Your task to perform on an android device: change timer sound Image 0: 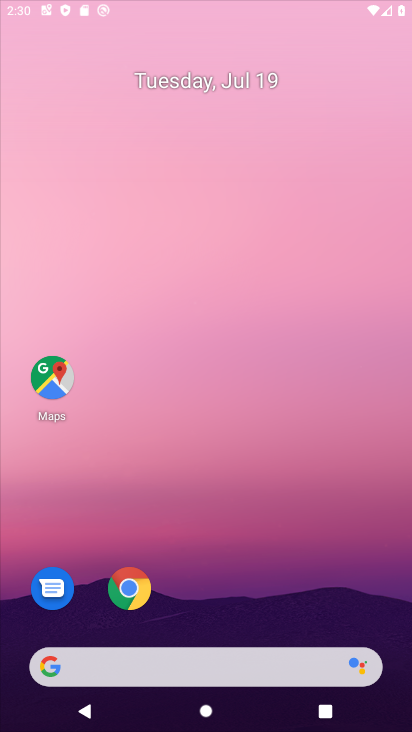
Step 0: click (136, 652)
Your task to perform on an android device: change timer sound Image 1: 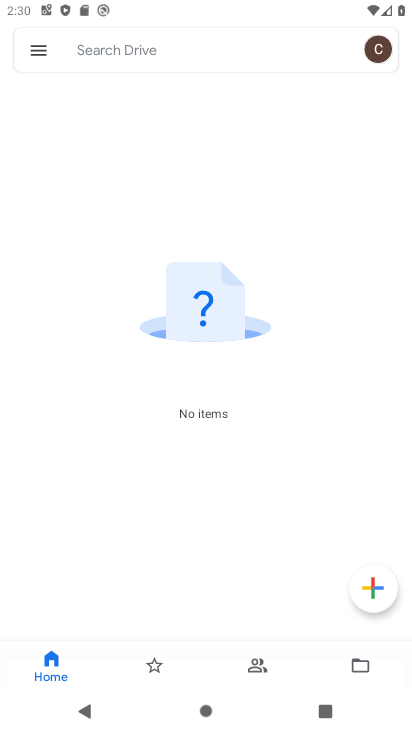
Step 1: press home button
Your task to perform on an android device: change timer sound Image 2: 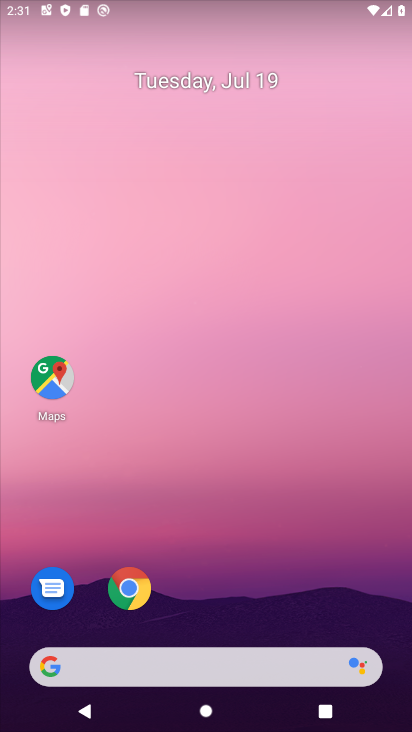
Step 2: click (163, 671)
Your task to perform on an android device: change timer sound Image 3: 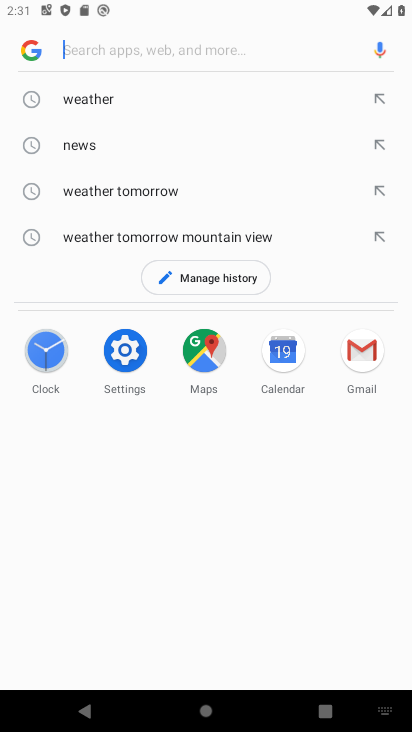
Step 3: click (88, 101)
Your task to perform on an android device: change timer sound Image 4: 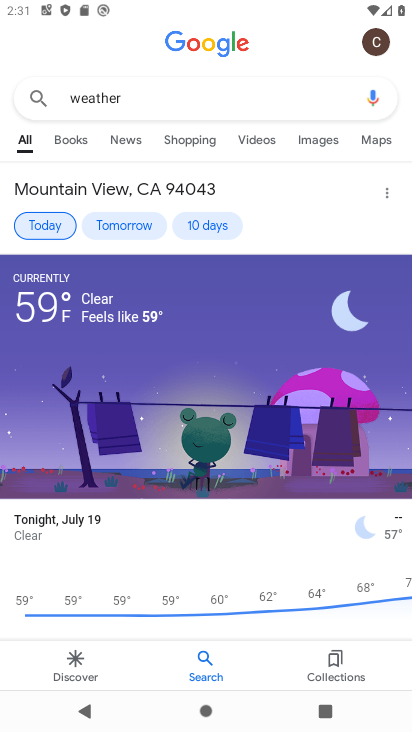
Step 4: press home button
Your task to perform on an android device: change timer sound Image 5: 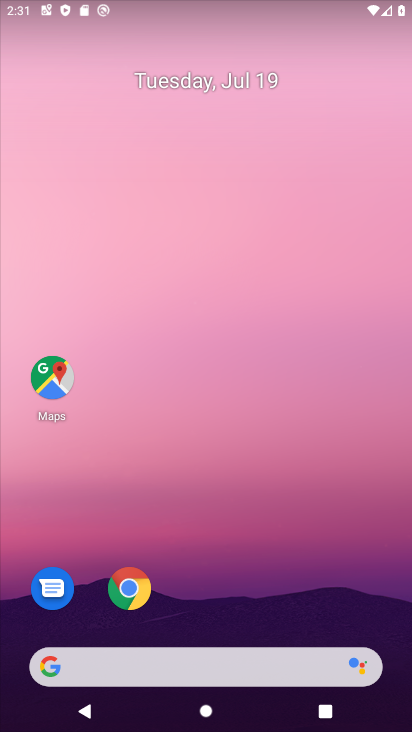
Step 5: click (142, 249)
Your task to perform on an android device: change timer sound Image 6: 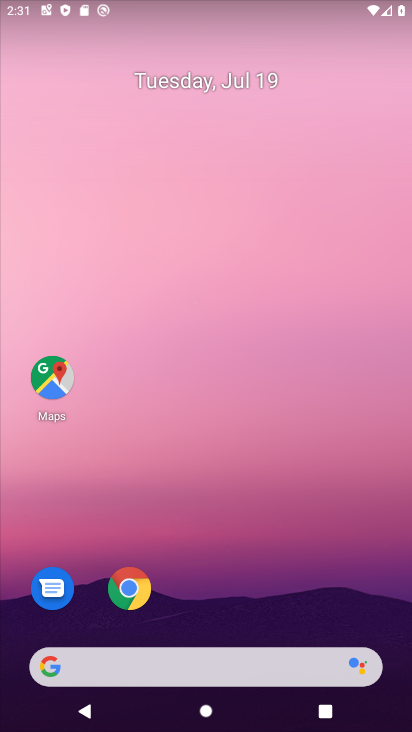
Step 6: drag from (208, 604) to (223, 60)
Your task to perform on an android device: change timer sound Image 7: 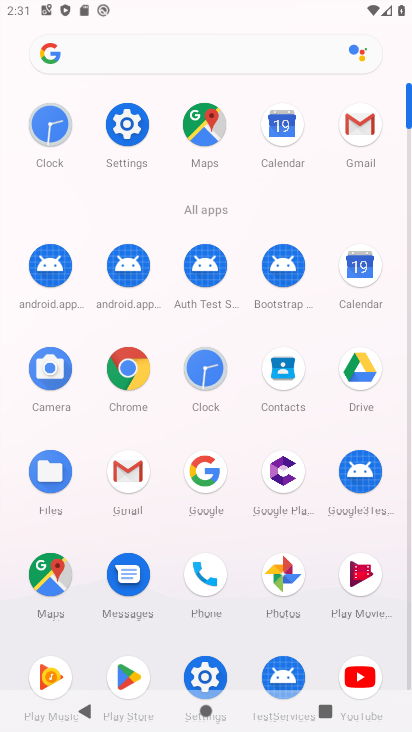
Step 7: click (41, 133)
Your task to perform on an android device: change timer sound Image 8: 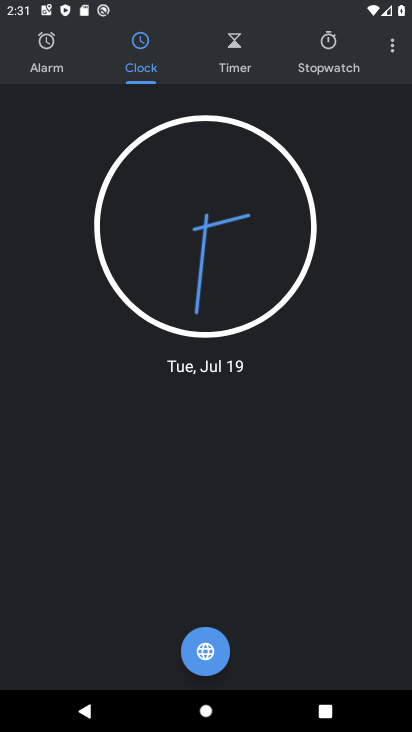
Step 8: click (395, 46)
Your task to perform on an android device: change timer sound Image 9: 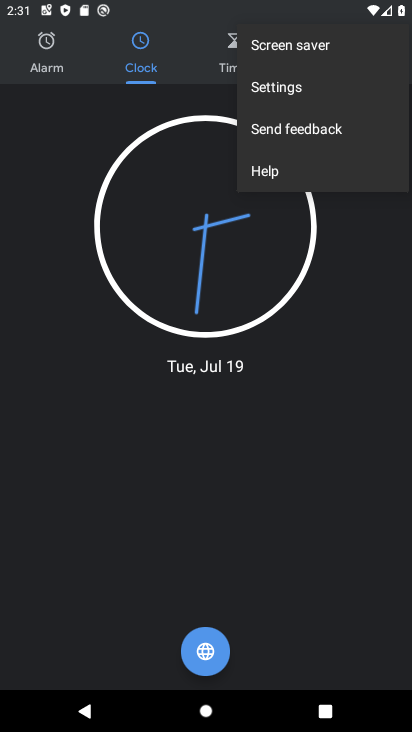
Step 9: click (297, 95)
Your task to perform on an android device: change timer sound Image 10: 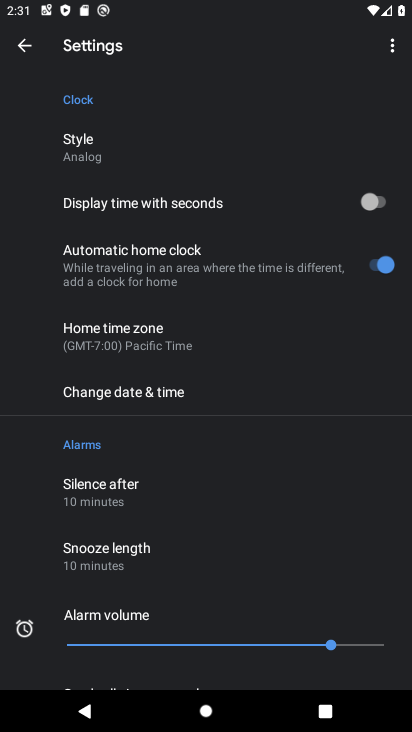
Step 10: drag from (274, 506) to (265, 293)
Your task to perform on an android device: change timer sound Image 11: 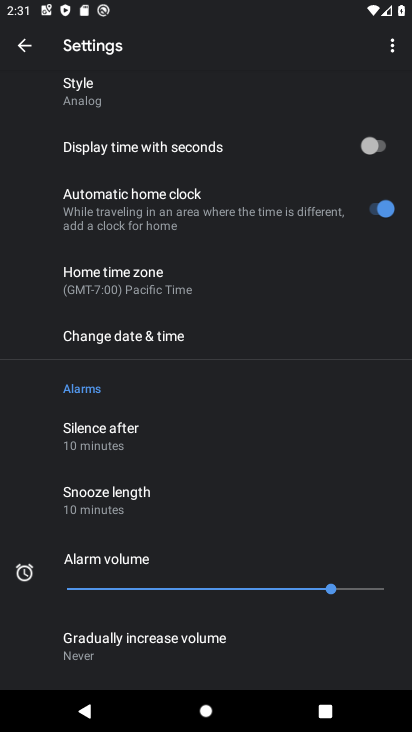
Step 11: drag from (152, 588) to (171, 340)
Your task to perform on an android device: change timer sound Image 12: 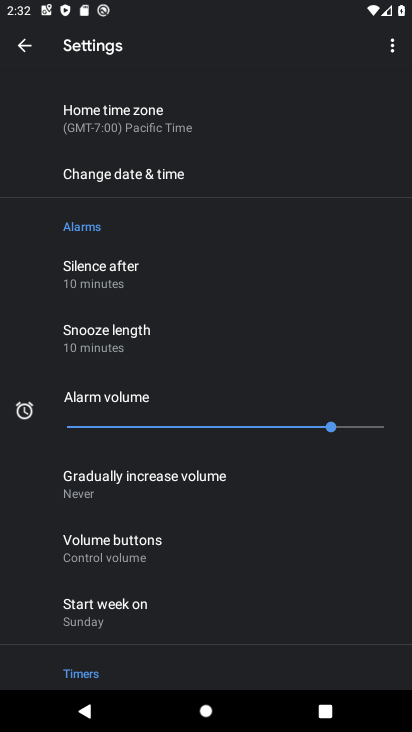
Step 12: drag from (136, 639) to (187, 370)
Your task to perform on an android device: change timer sound Image 13: 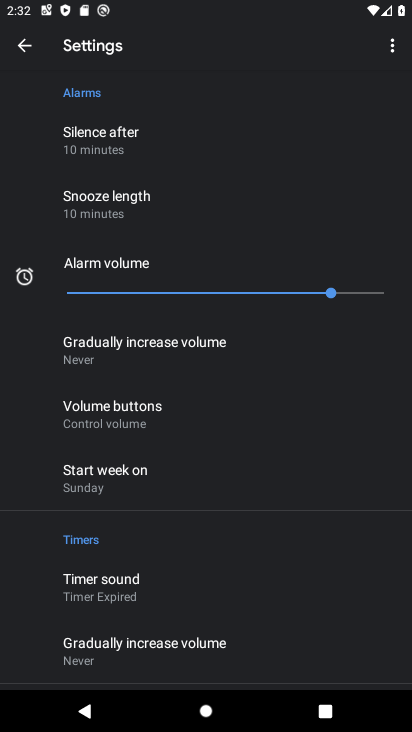
Step 13: click (115, 580)
Your task to perform on an android device: change timer sound Image 14: 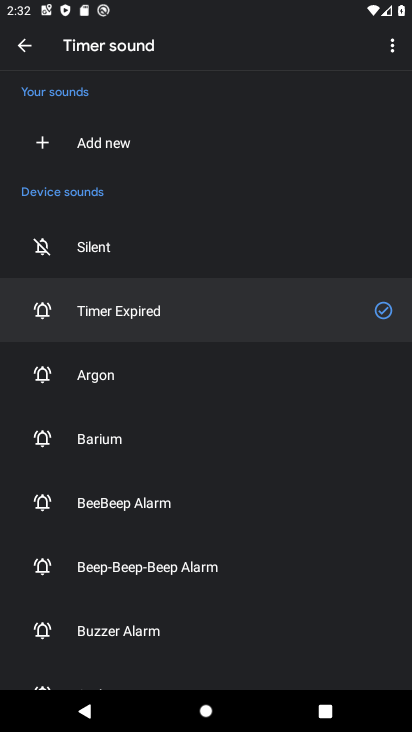
Step 14: click (83, 382)
Your task to perform on an android device: change timer sound Image 15: 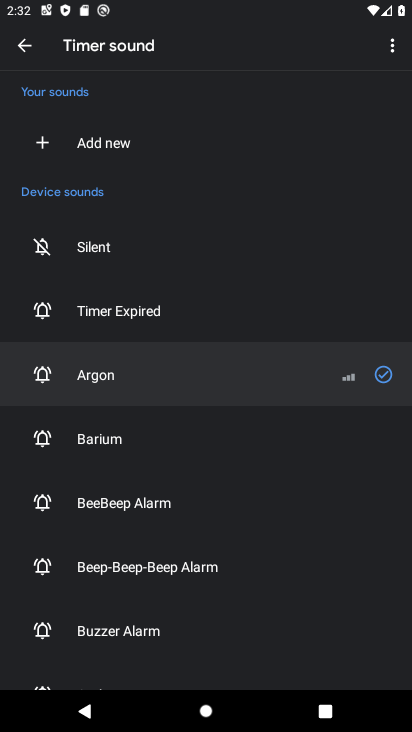
Step 15: task complete